Your task to perform on an android device: Go to Google maps Image 0: 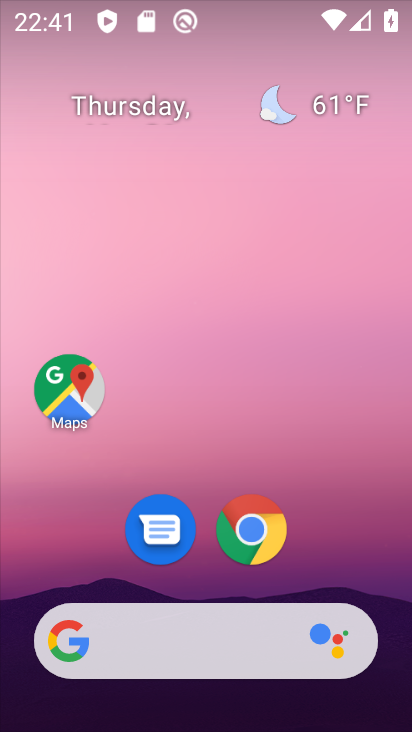
Step 0: click (53, 395)
Your task to perform on an android device: Go to Google maps Image 1: 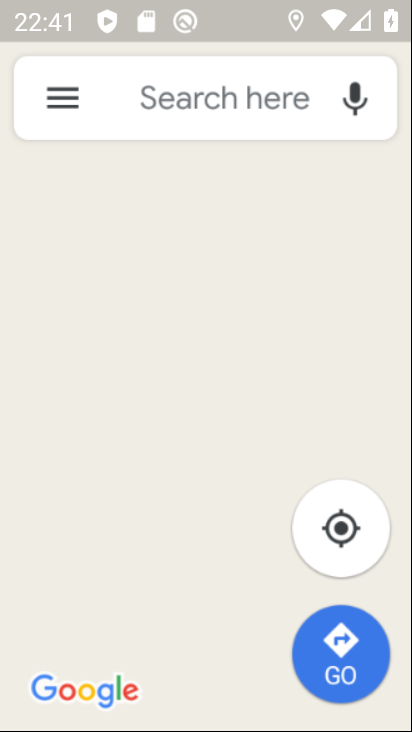
Step 1: task complete